Your task to perform on an android device: turn on the 24-hour format for clock Image 0: 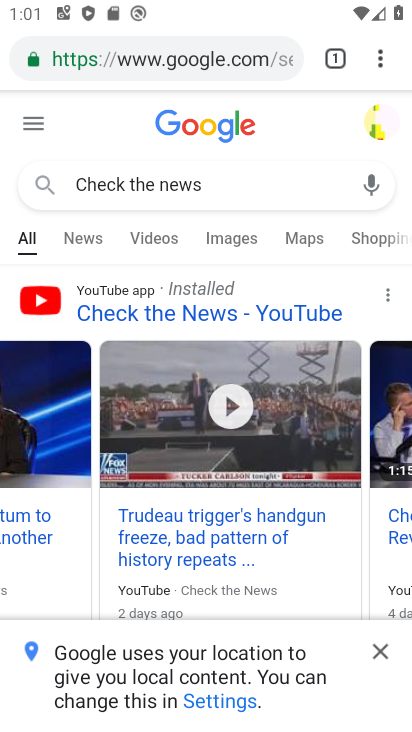
Step 0: press back button
Your task to perform on an android device: turn on the 24-hour format for clock Image 1: 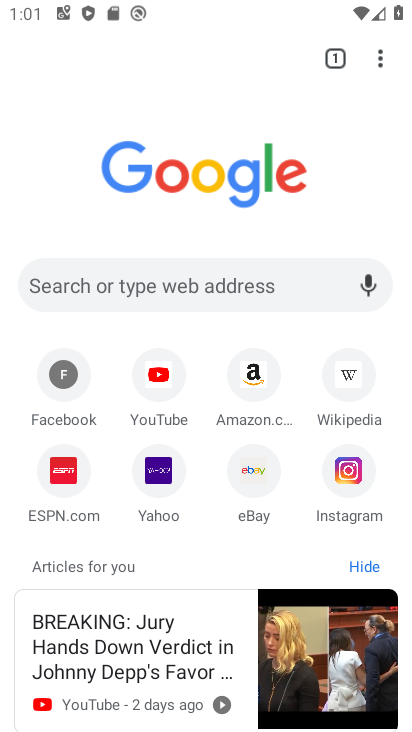
Step 1: press back button
Your task to perform on an android device: turn on the 24-hour format for clock Image 2: 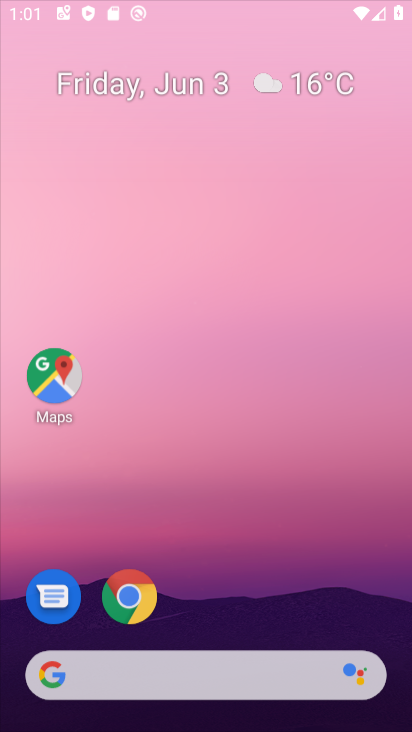
Step 2: press home button
Your task to perform on an android device: turn on the 24-hour format for clock Image 3: 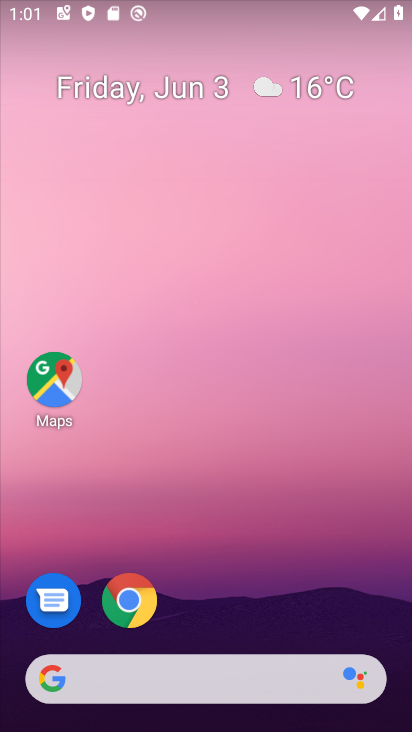
Step 3: drag from (243, 567) to (13, 29)
Your task to perform on an android device: turn on the 24-hour format for clock Image 4: 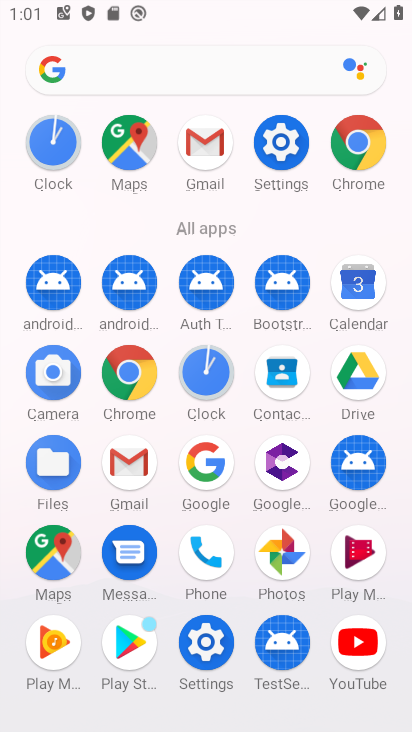
Step 4: drag from (18, 564) to (17, 311)
Your task to perform on an android device: turn on the 24-hour format for clock Image 5: 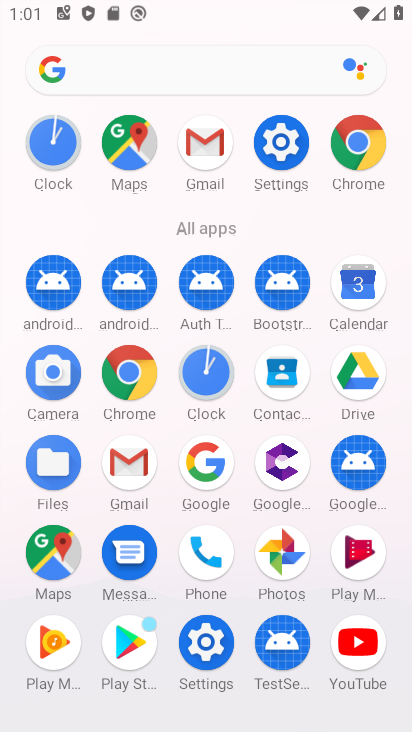
Step 5: click (203, 369)
Your task to perform on an android device: turn on the 24-hour format for clock Image 6: 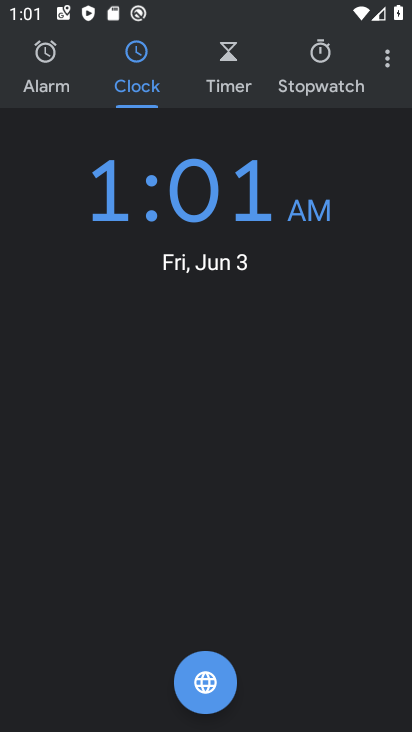
Step 6: drag from (385, 53) to (280, 116)
Your task to perform on an android device: turn on the 24-hour format for clock Image 7: 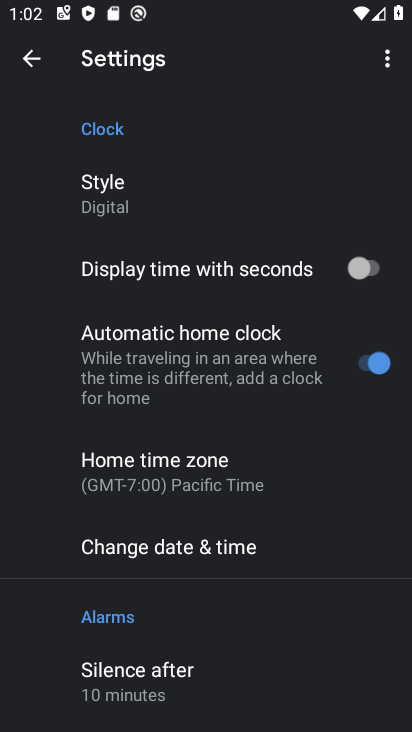
Step 7: drag from (214, 559) to (217, 191)
Your task to perform on an android device: turn on the 24-hour format for clock Image 8: 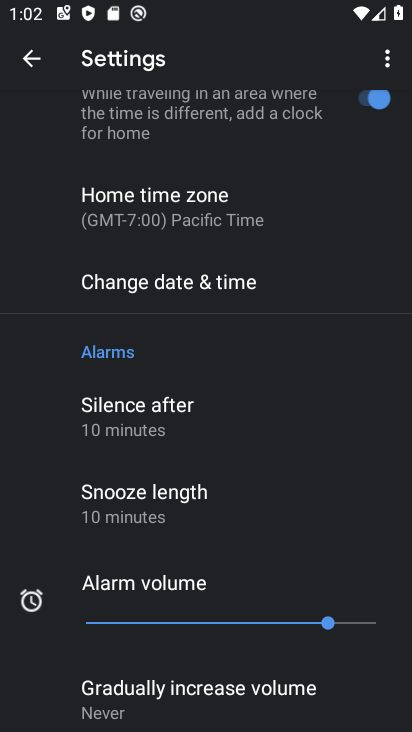
Step 8: click (215, 274)
Your task to perform on an android device: turn on the 24-hour format for clock Image 9: 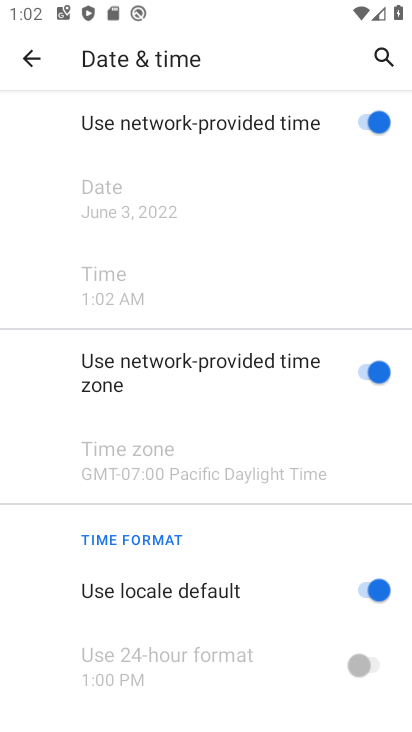
Step 9: drag from (208, 450) to (176, 145)
Your task to perform on an android device: turn on the 24-hour format for clock Image 10: 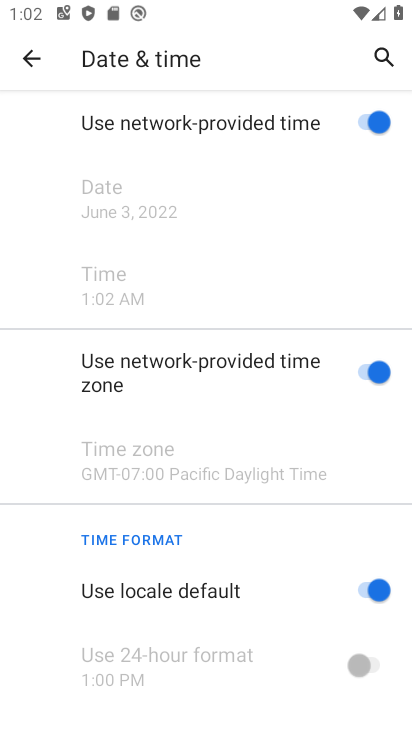
Step 10: click (366, 584)
Your task to perform on an android device: turn on the 24-hour format for clock Image 11: 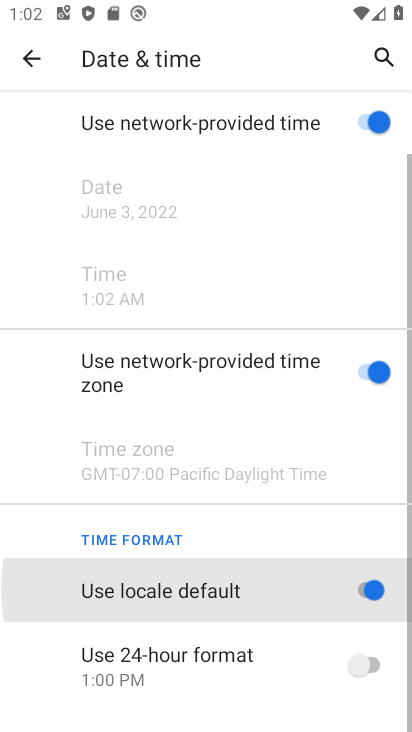
Step 11: click (371, 657)
Your task to perform on an android device: turn on the 24-hour format for clock Image 12: 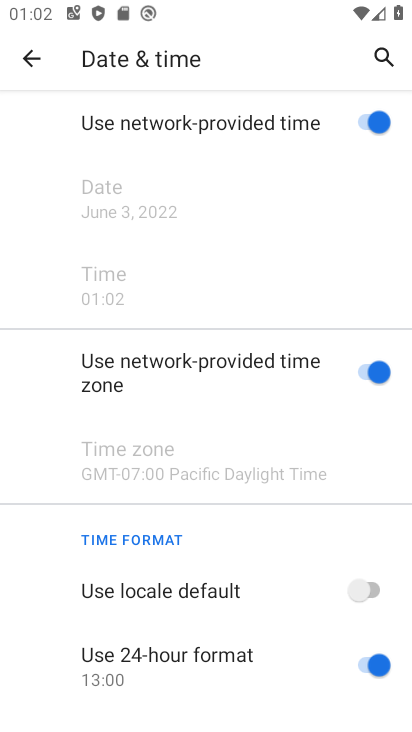
Step 12: task complete